Your task to perform on an android device: Go to CNN.com Image 0: 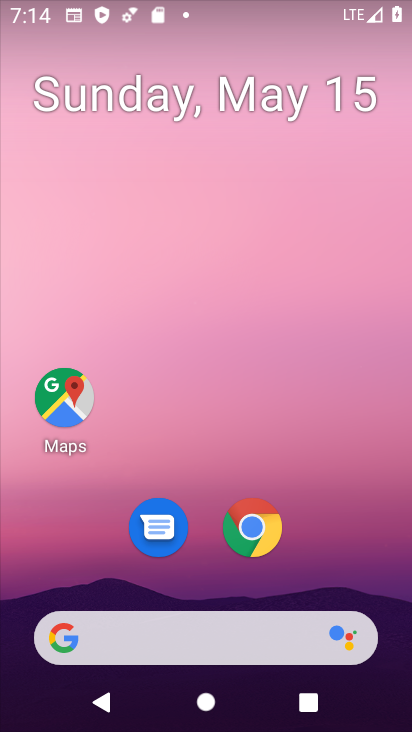
Step 0: drag from (343, 502) to (371, 88)
Your task to perform on an android device: Go to CNN.com Image 1: 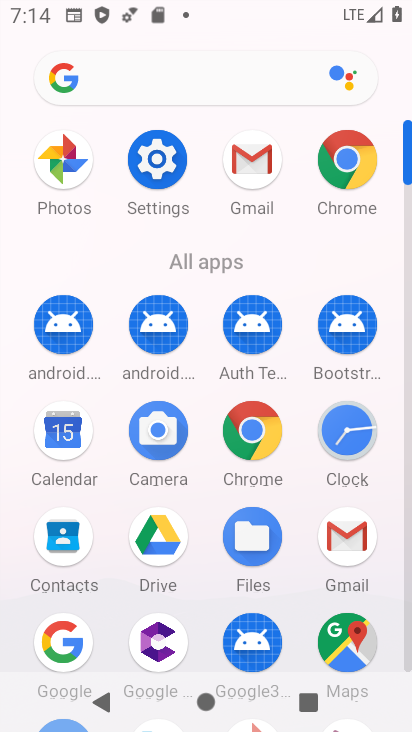
Step 1: click (366, 155)
Your task to perform on an android device: Go to CNN.com Image 2: 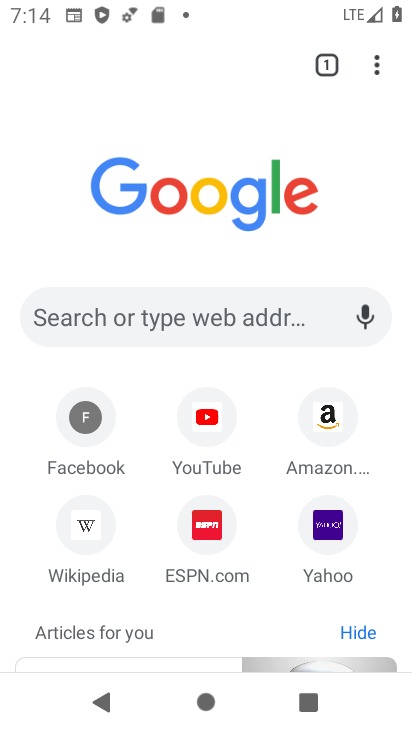
Step 2: click (159, 317)
Your task to perform on an android device: Go to CNN.com Image 3: 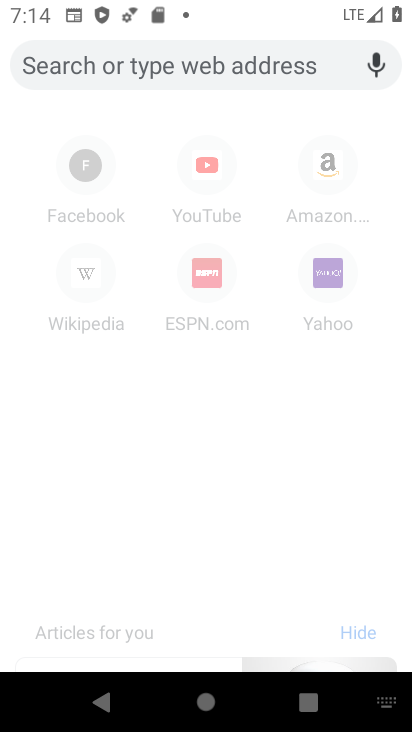
Step 3: type "cnn.com"
Your task to perform on an android device: Go to CNN.com Image 4: 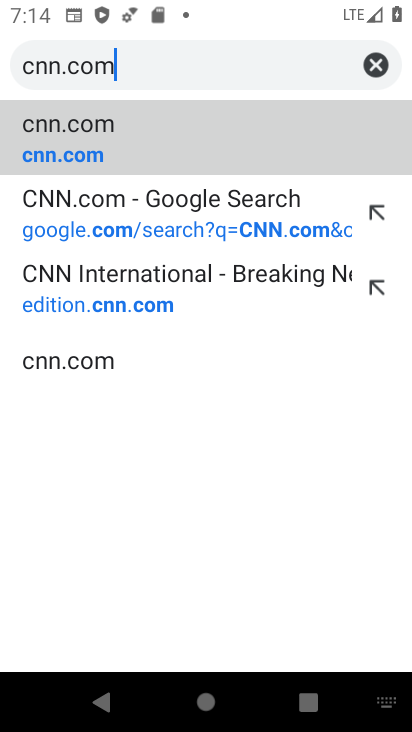
Step 4: click (67, 140)
Your task to perform on an android device: Go to CNN.com Image 5: 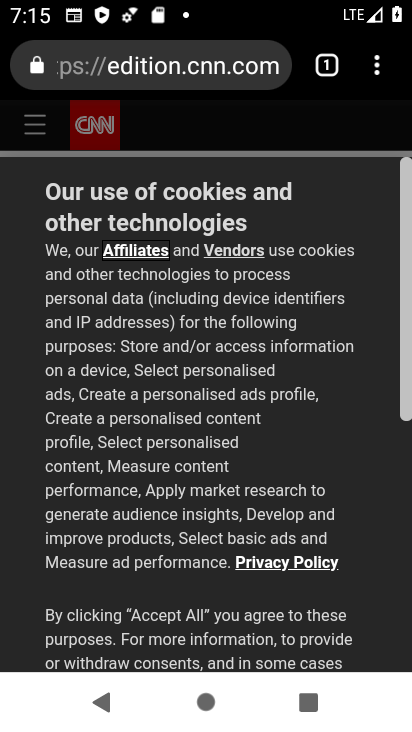
Step 5: task complete